Your task to perform on an android device: Go to accessibility settings Image 0: 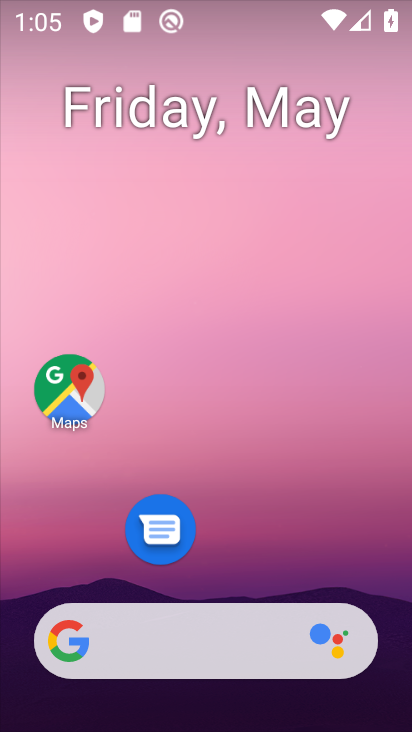
Step 0: drag from (219, 583) to (273, 128)
Your task to perform on an android device: Go to accessibility settings Image 1: 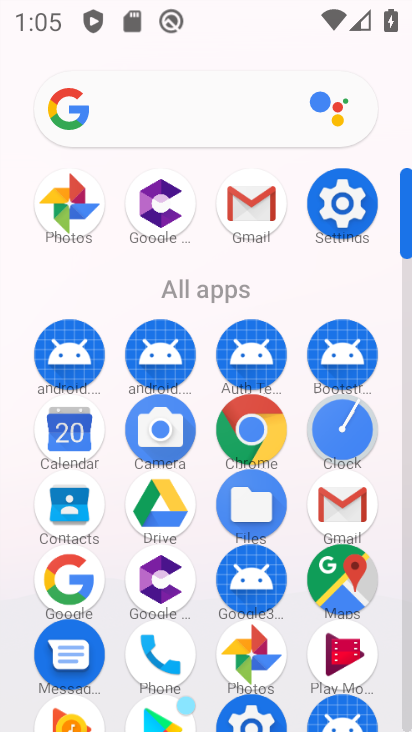
Step 1: click (333, 213)
Your task to perform on an android device: Go to accessibility settings Image 2: 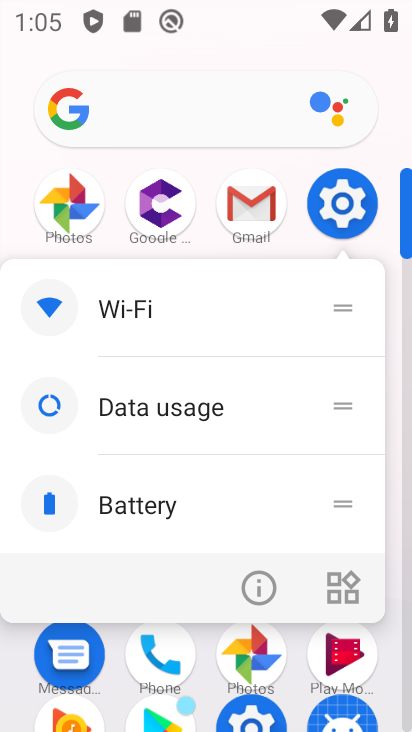
Step 2: click (259, 583)
Your task to perform on an android device: Go to accessibility settings Image 3: 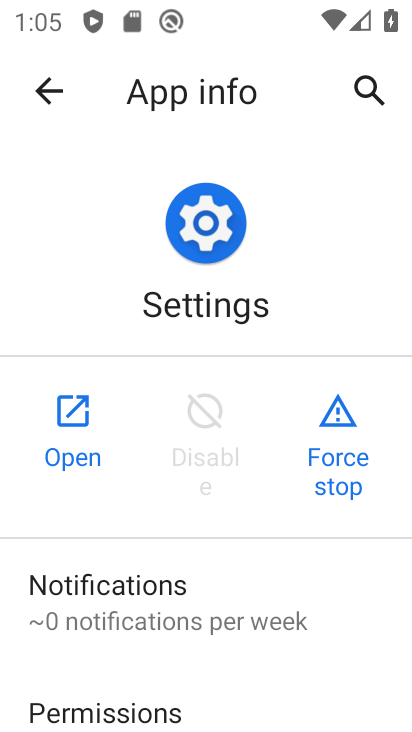
Step 3: click (79, 410)
Your task to perform on an android device: Go to accessibility settings Image 4: 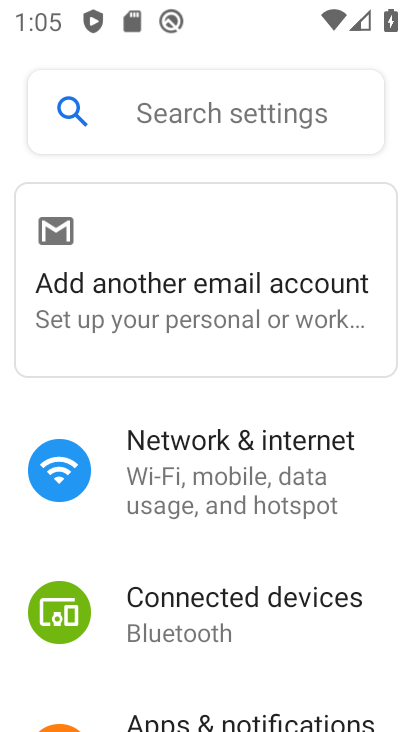
Step 4: drag from (210, 559) to (339, 154)
Your task to perform on an android device: Go to accessibility settings Image 5: 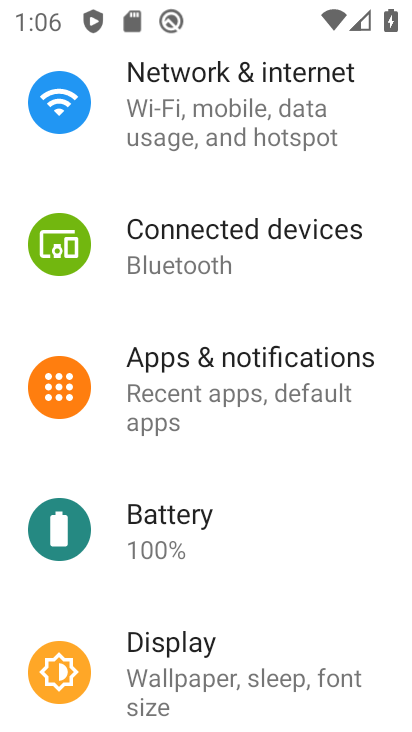
Step 5: drag from (148, 570) to (290, 125)
Your task to perform on an android device: Go to accessibility settings Image 6: 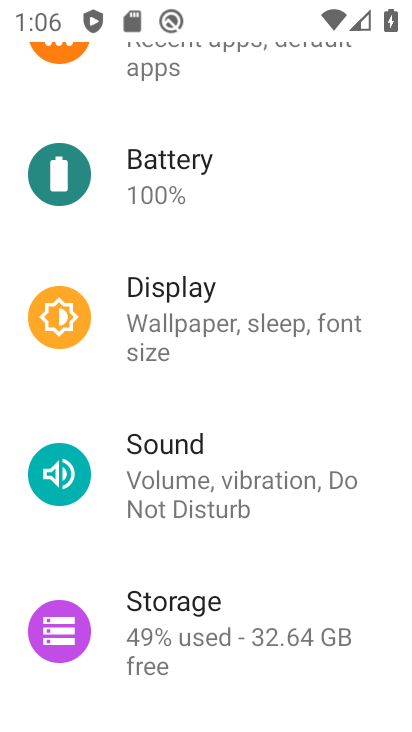
Step 6: drag from (207, 609) to (329, 18)
Your task to perform on an android device: Go to accessibility settings Image 7: 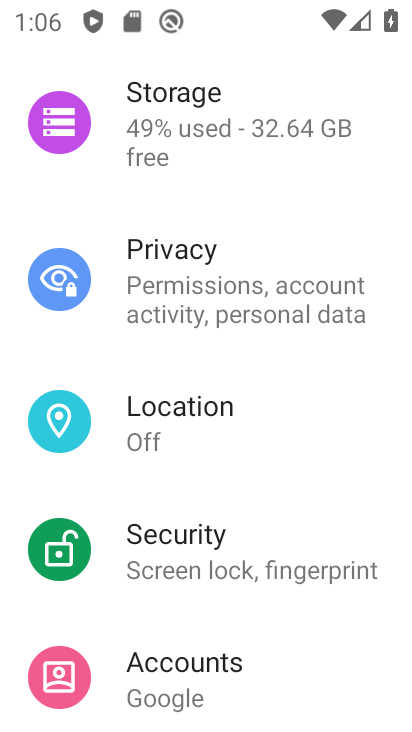
Step 7: drag from (205, 606) to (327, 57)
Your task to perform on an android device: Go to accessibility settings Image 8: 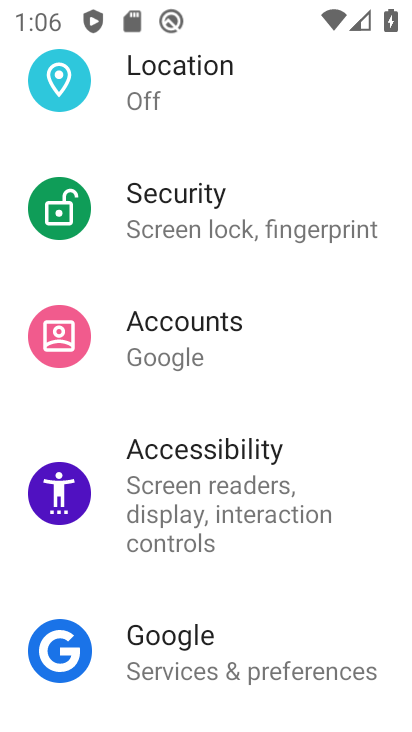
Step 8: click (207, 470)
Your task to perform on an android device: Go to accessibility settings Image 9: 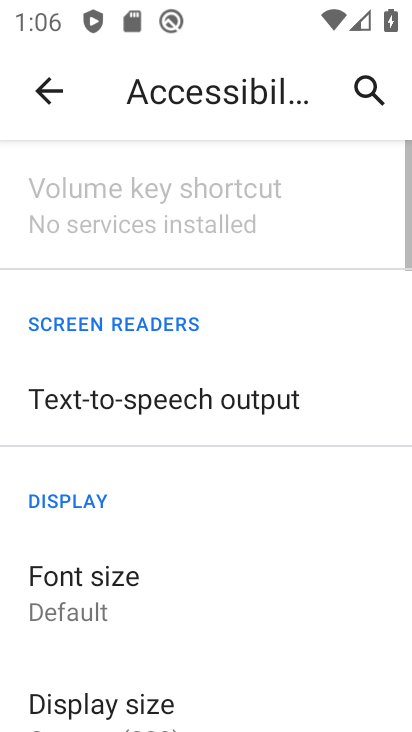
Step 9: task complete